Your task to perform on an android device: Search for "alienware area 51" on newegg, select the first entry, add it to the cart, then select checkout. Image 0: 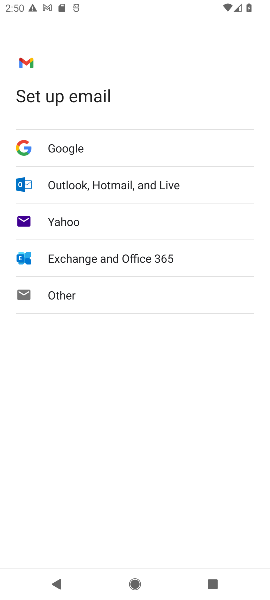
Step 0: press home button
Your task to perform on an android device: Search for "alienware area 51" on newegg, select the first entry, add it to the cart, then select checkout. Image 1: 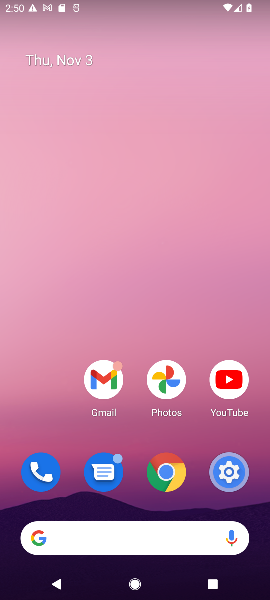
Step 1: click (123, 547)
Your task to perform on an android device: Search for "alienware area 51" on newegg, select the first entry, add it to the cart, then select checkout. Image 2: 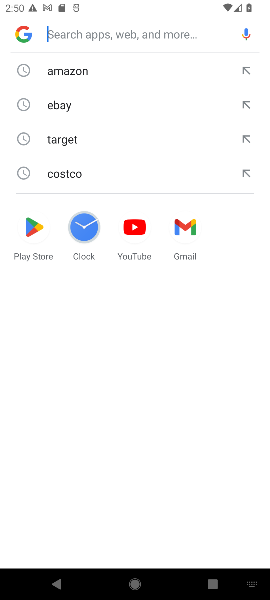
Step 2: type "newegg"
Your task to perform on an android device: Search for "alienware area 51" on newegg, select the first entry, add it to the cart, then select checkout. Image 3: 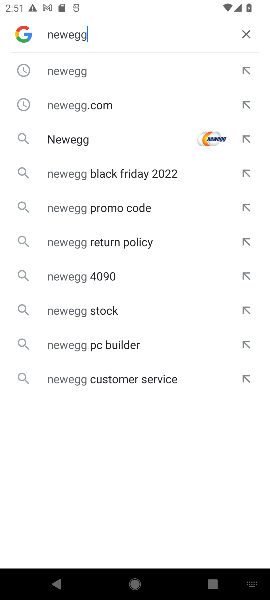
Step 3: click (253, 62)
Your task to perform on an android device: Search for "alienware area 51" on newegg, select the first entry, add it to the cart, then select checkout. Image 4: 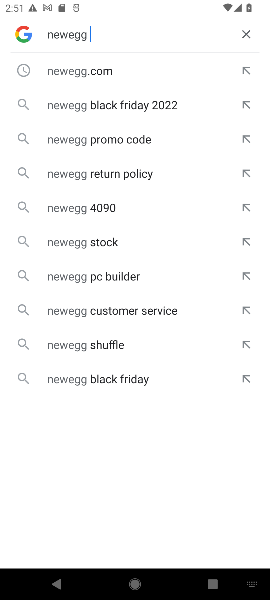
Step 4: click (103, 81)
Your task to perform on an android device: Search for "alienware area 51" on newegg, select the first entry, add it to the cart, then select checkout. Image 5: 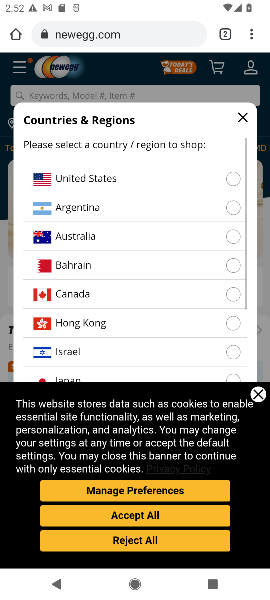
Step 5: click (179, 182)
Your task to perform on an android device: Search for "alienware area 51" on newegg, select the first entry, add it to the cart, then select checkout. Image 6: 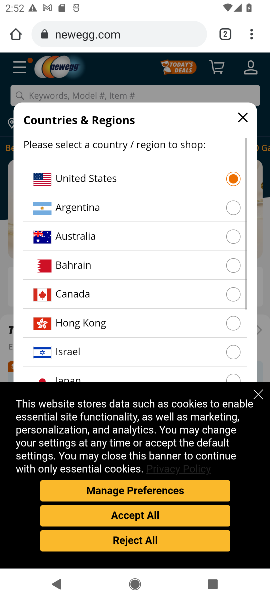
Step 6: click (258, 389)
Your task to perform on an android device: Search for "alienware area 51" on newegg, select the first entry, add it to the cart, then select checkout. Image 7: 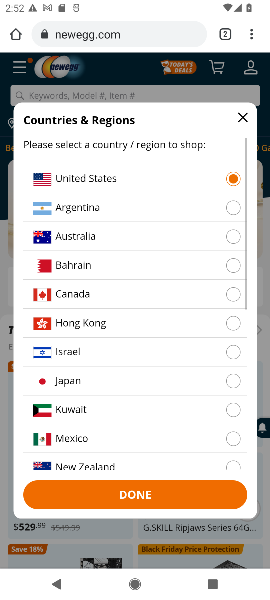
Step 7: click (128, 496)
Your task to perform on an android device: Search for "alienware area 51" on newegg, select the first entry, add it to the cart, then select checkout. Image 8: 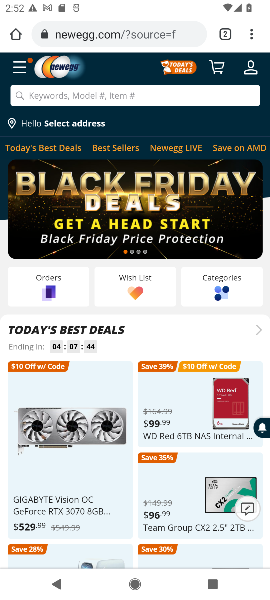
Step 8: click (95, 92)
Your task to perform on an android device: Search for "alienware area 51" on newegg, select the first entry, add it to the cart, then select checkout. Image 9: 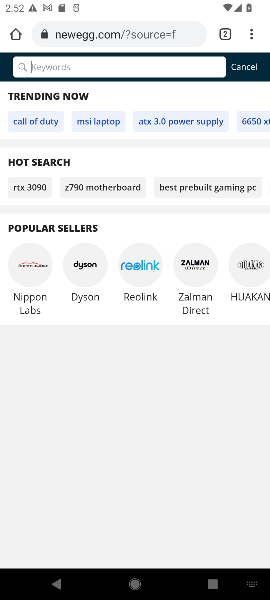
Step 9: type "alienware area 51"
Your task to perform on an android device: Search for "alienware area 51" on newegg, select the first entry, add it to the cart, then select checkout. Image 10: 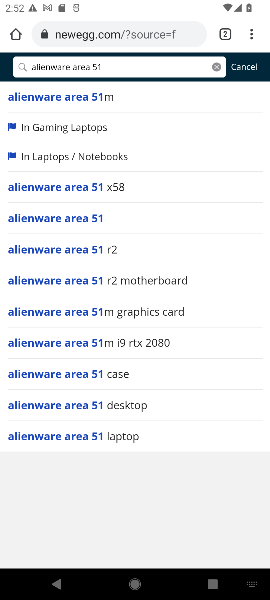
Step 10: click (118, 101)
Your task to perform on an android device: Search for "alienware area 51" on newegg, select the first entry, add it to the cart, then select checkout. Image 11: 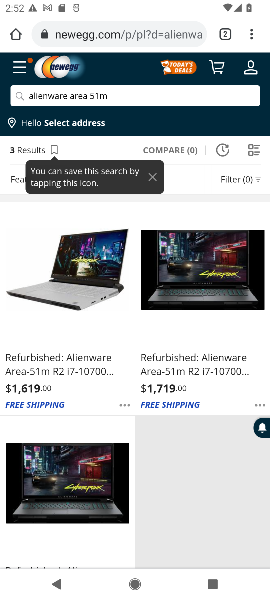
Step 11: click (73, 314)
Your task to perform on an android device: Search for "alienware area 51" on newegg, select the first entry, add it to the cart, then select checkout. Image 12: 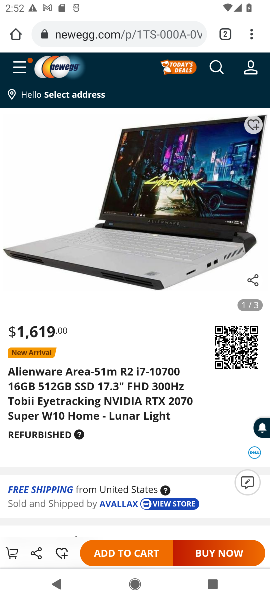
Step 12: click (142, 546)
Your task to perform on an android device: Search for "alienware area 51" on newegg, select the first entry, add it to the cart, then select checkout. Image 13: 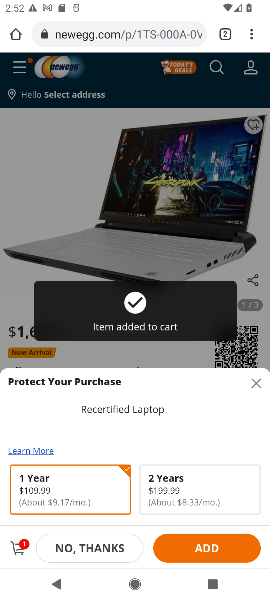
Step 13: task complete